Your task to perform on an android device: turn on sleep mode Image 0: 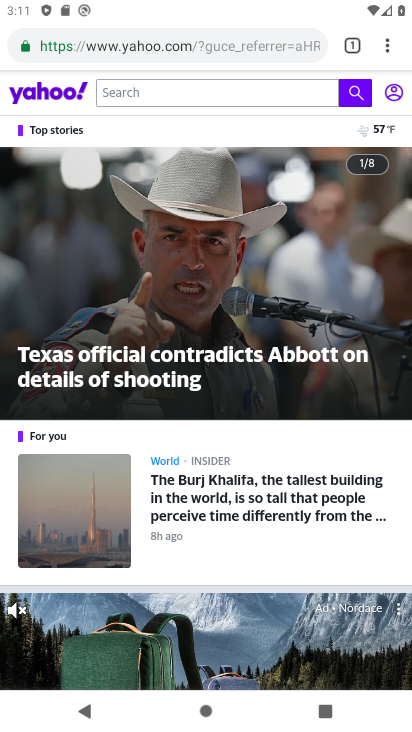
Step 0: press home button
Your task to perform on an android device: turn on sleep mode Image 1: 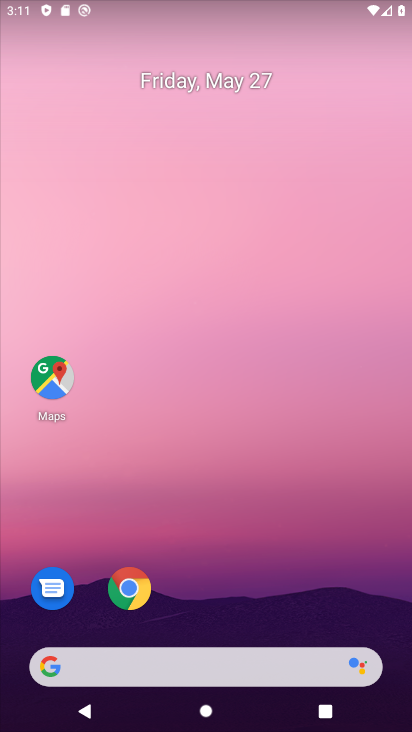
Step 1: drag from (367, 9) to (234, 706)
Your task to perform on an android device: turn on sleep mode Image 2: 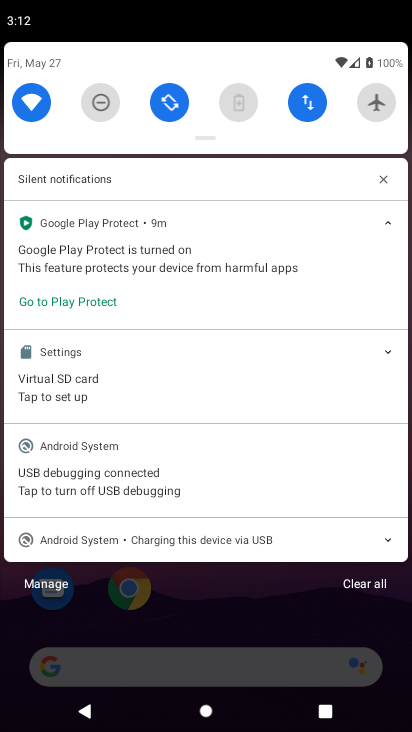
Step 2: drag from (203, 128) to (410, 486)
Your task to perform on an android device: turn on sleep mode Image 3: 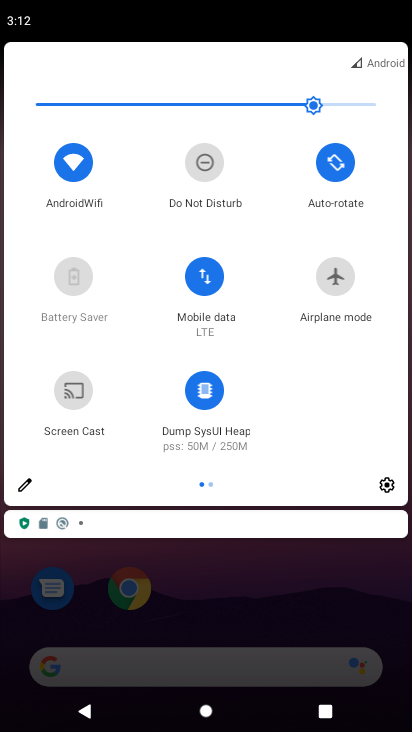
Step 3: click (20, 484)
Your task to perform on an android device: turn on sleep mode Image 4: 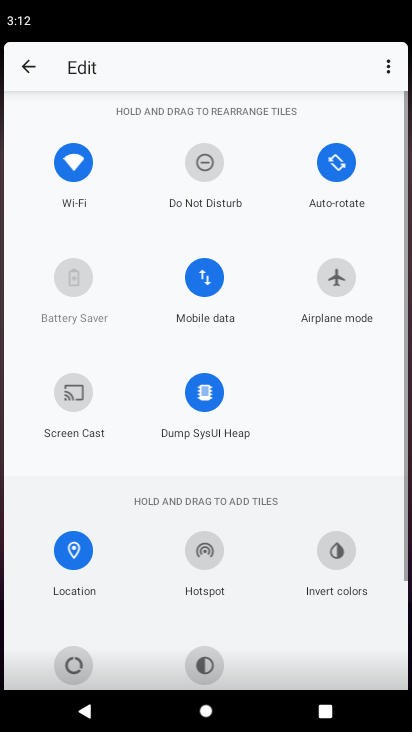
Step 4: task complete